Your task to perform on an android device: Go to internet settings Image 0: 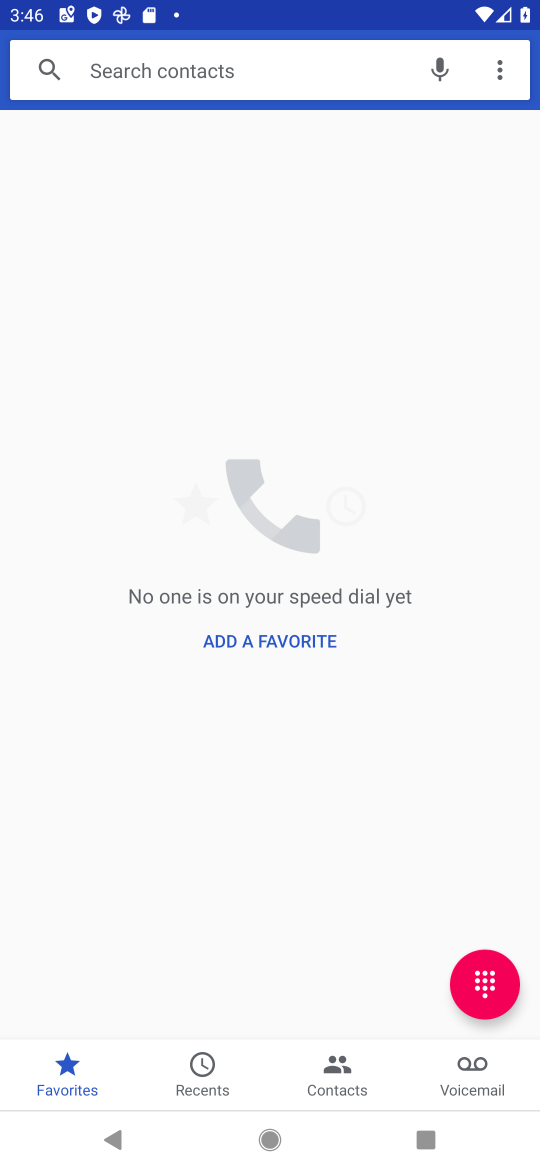
Step 0: press home button
Your task to perform on an android device: Go to internet settings Image 1: 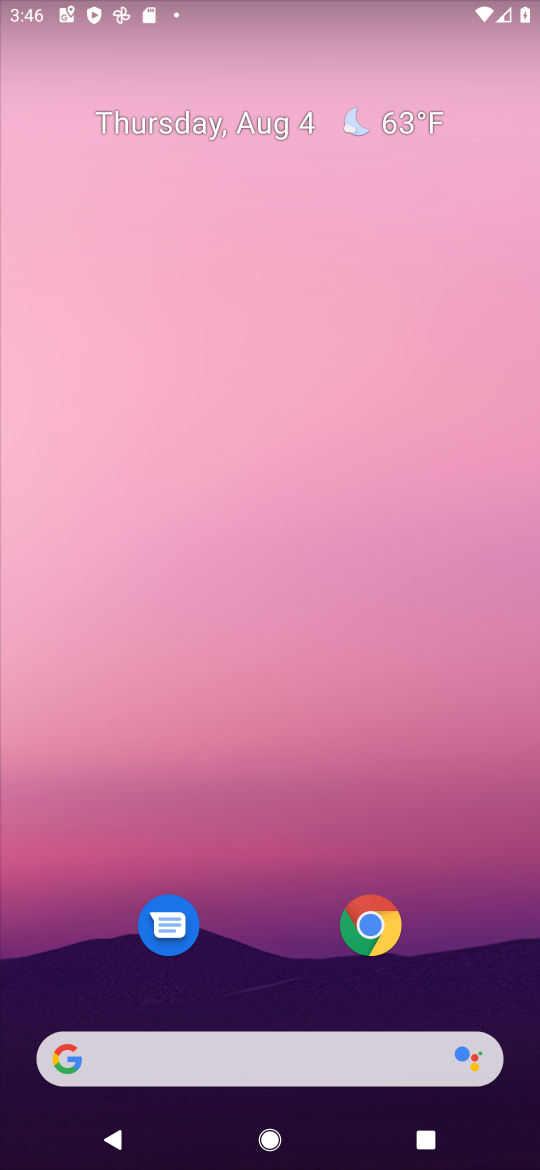
Step 1: drag from (305, 833) to (211, 15)
Your task to perform on an android device: Go to internet settings Image 2: 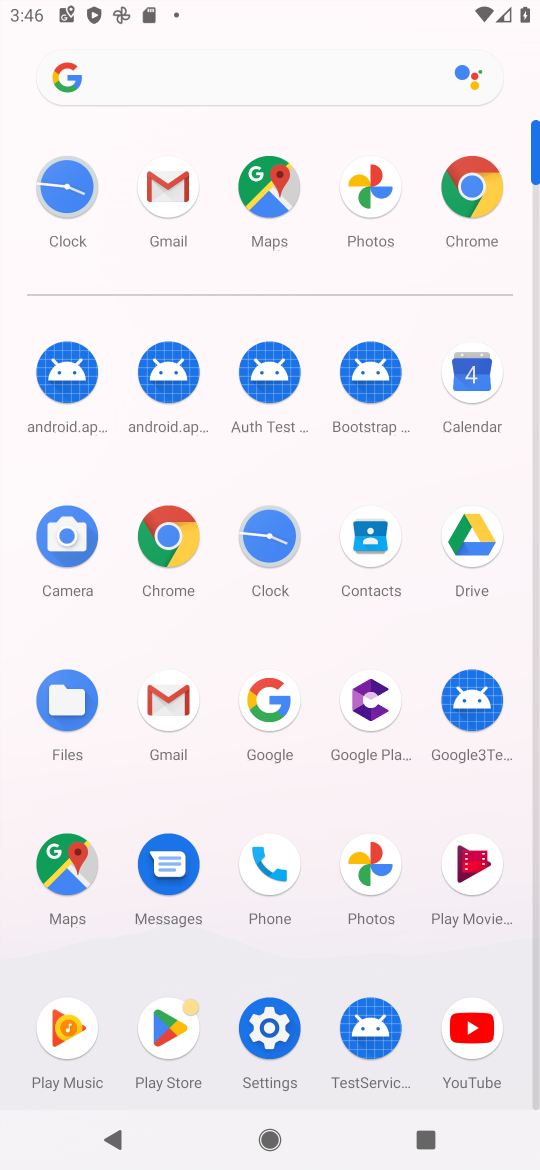
Step 2: click (263, 1031)
Your task to perform on an android device: Go to internet settings Image 3: 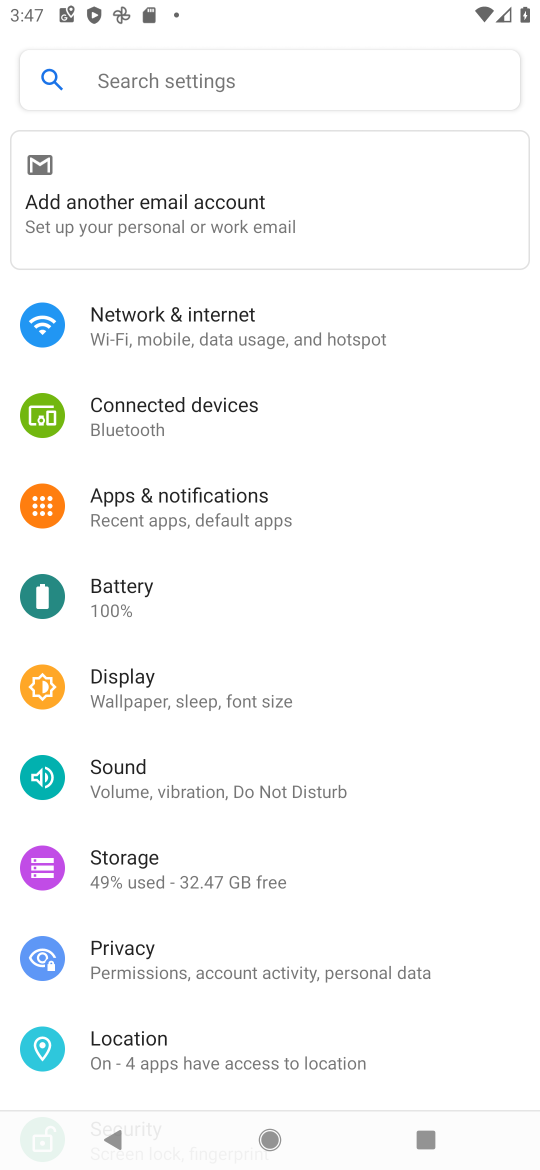
Step 3: click (146, 329)
Your task to perform on an android device: Go to internet settings Image 4: 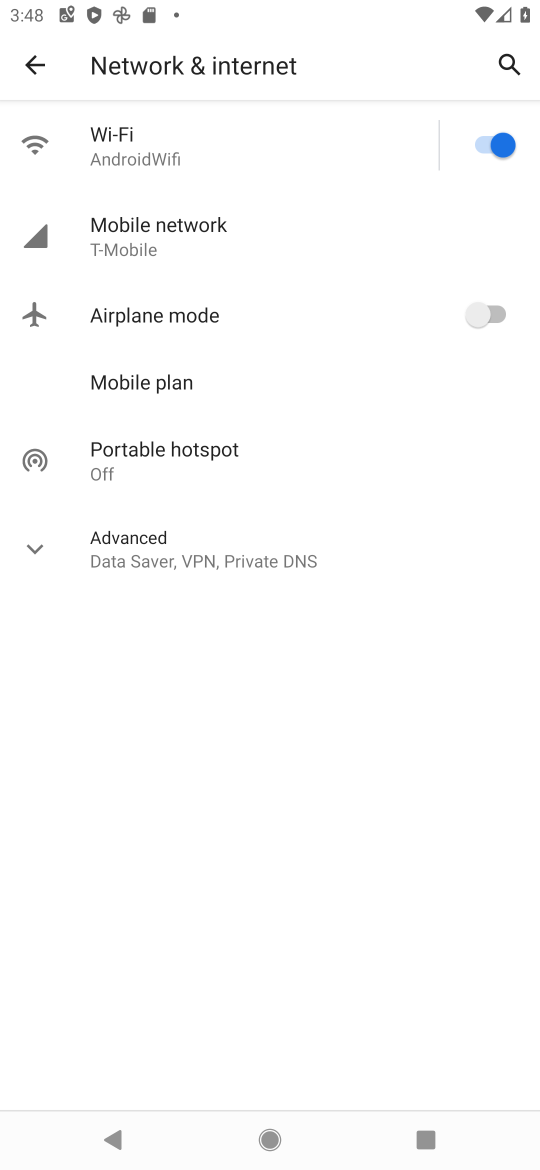
Step 4: task complete